Your task to perform on an android device: Go to Wikipedia Image 0: 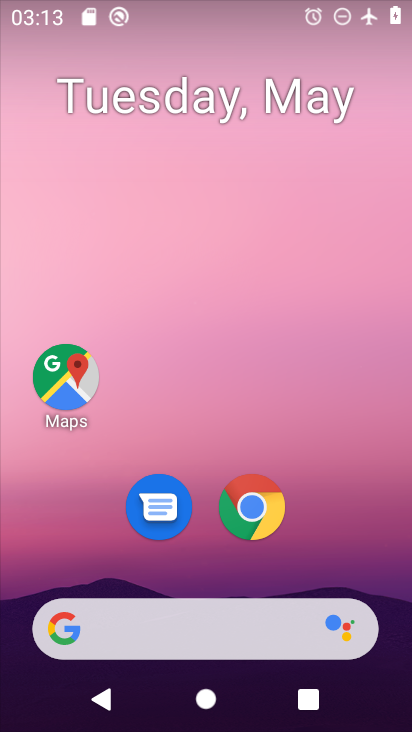
Step 0: click (215, 569)
Your task to perform on an android device: Go to Wikipedia Image 1: 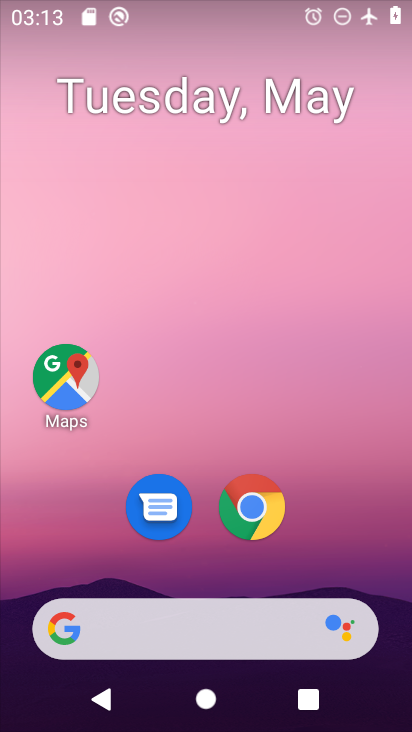
Step 1: drag from (211, 572) to (224, 166)
Your task to perform on an android device: Go to Wikipedia Image 2: 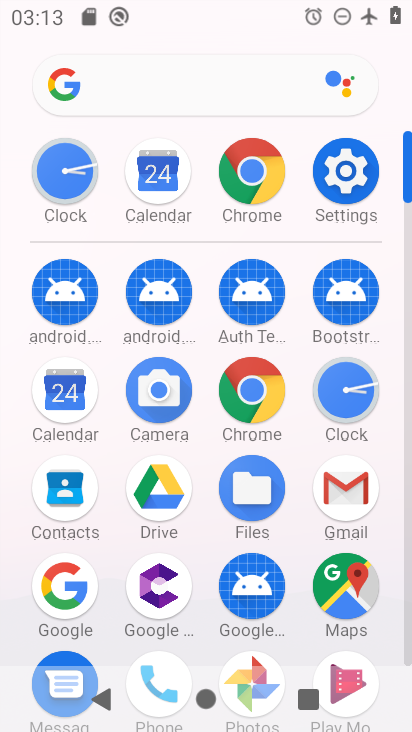
Step 2: click (225, 160)
Your task to perform on an android device: Go to Wikipedia Image 3: 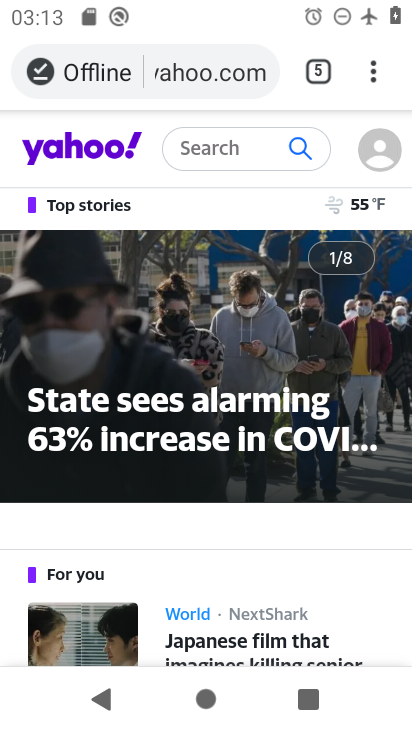
Step 3: click (304, 76)
Your task to perform on an android device: Go to Wikipedia Image 4: 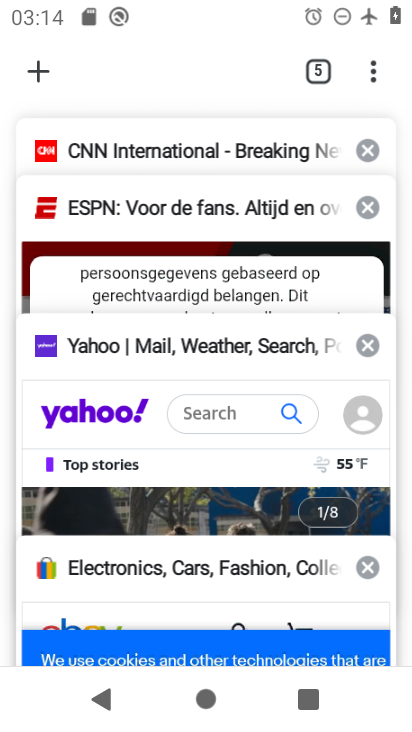
Step 4: click (38, 65)
Your task to perform on an android device: Go to Wikipedia Image 5: 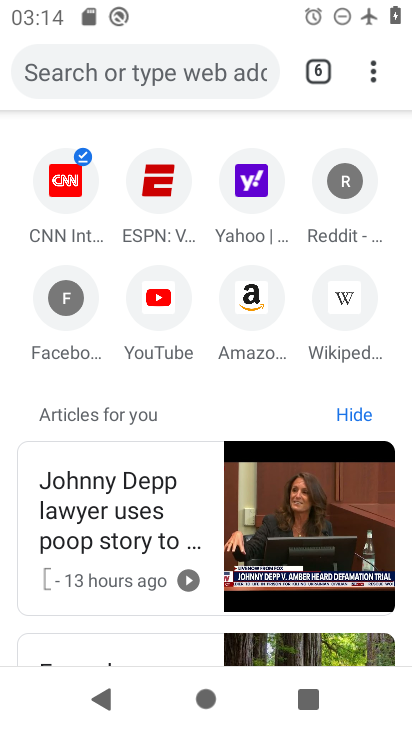
Step 5: click (149, 77)
Your task to perform on an android device: Go to Wikipedia Image 6: 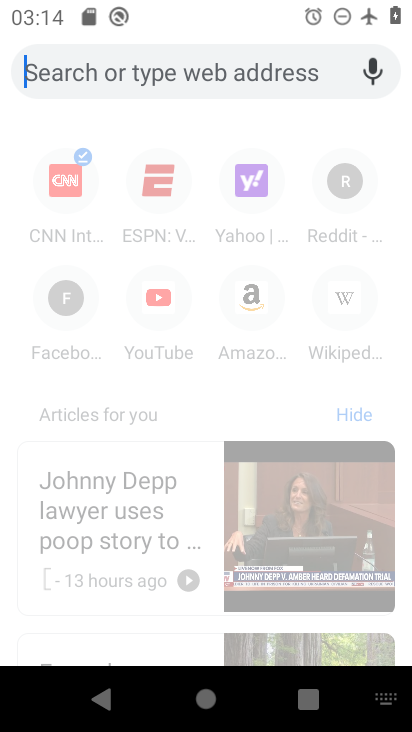
Step 6: type "Wikipedia"
Your task to perform on an android device: Go to Wikipedia Image 7: 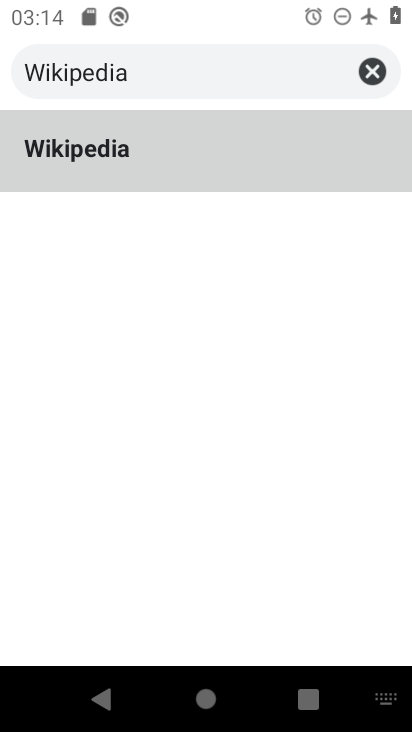
Step 7: click (137, 163)
Your task to perform on an android device: Go to Wikipedia Image 8: 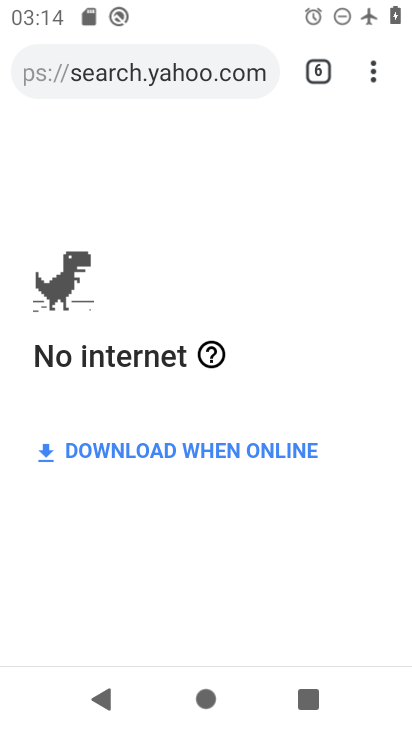
Step 8: task complete